Your task to perform on an android device: turn on wifi Image 0: 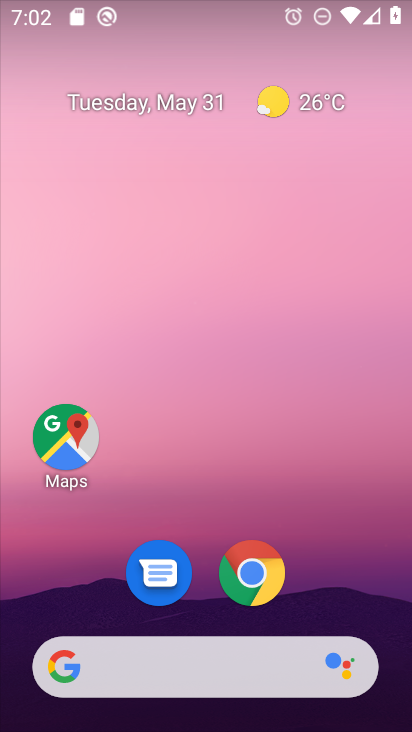
Step 0: press home button
Your task to perform on an android device: turn on wifi Image 1: 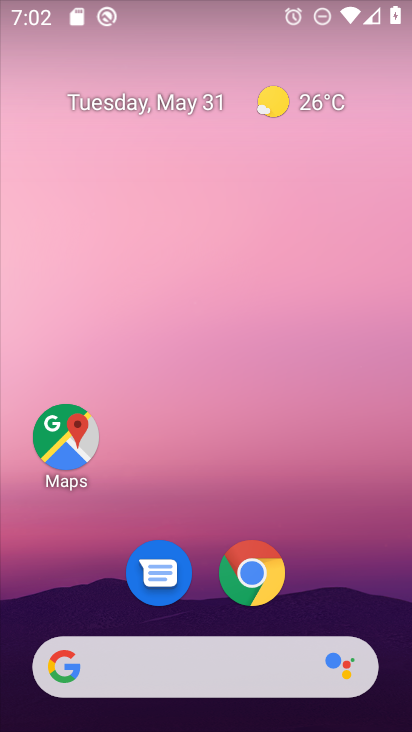
Step 1: task complete